Your task to perform on an android device: delete a single message in the gmail app Image 0: 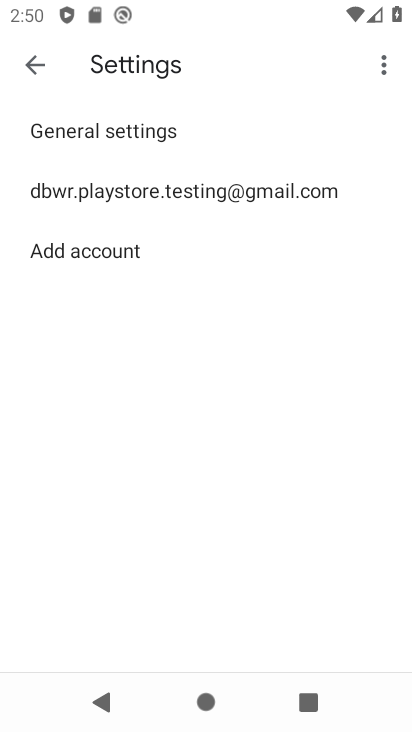
Step 0: press home button
Your task to perform on an android device: delete a single message in the gmail app Image 1: 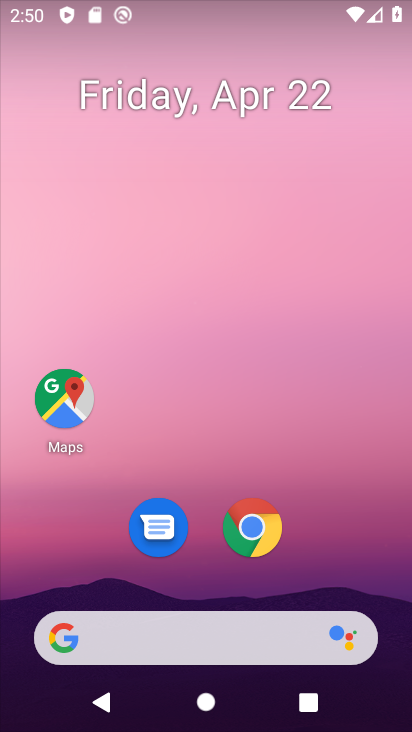
Step 1: drag from (376, 555) to (304, 82)
Your task to perform on an android device: delete a single message in the gmail app Image 2: 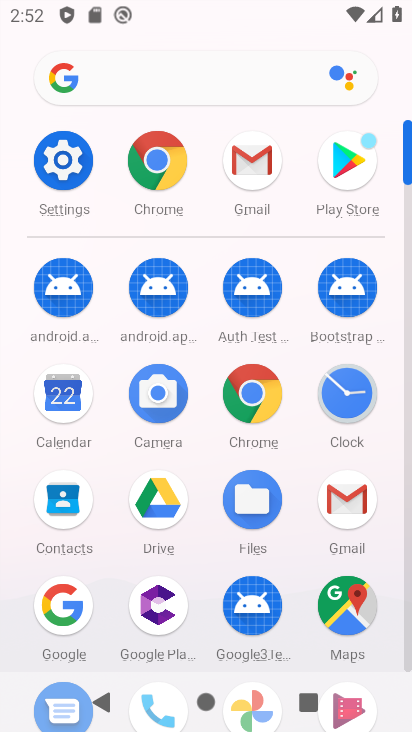
Step 2: click (338, 521)
Your task to perform on an android device: delete a single message in the gmail app Image 3: 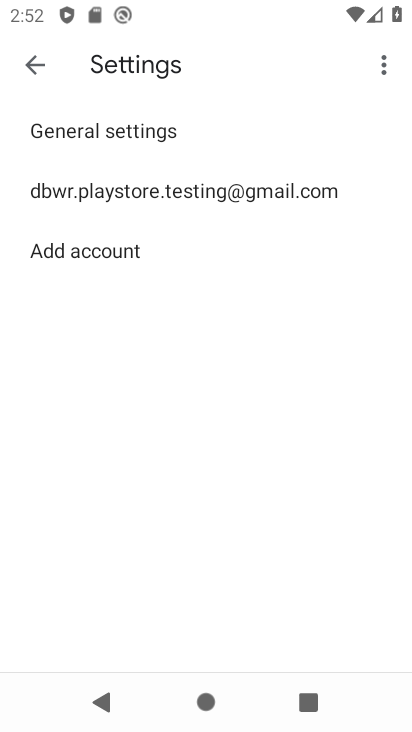
Step 3: click (31, 78)
Your task to perform on an android device: delete a single message in the gmail app Image 4: 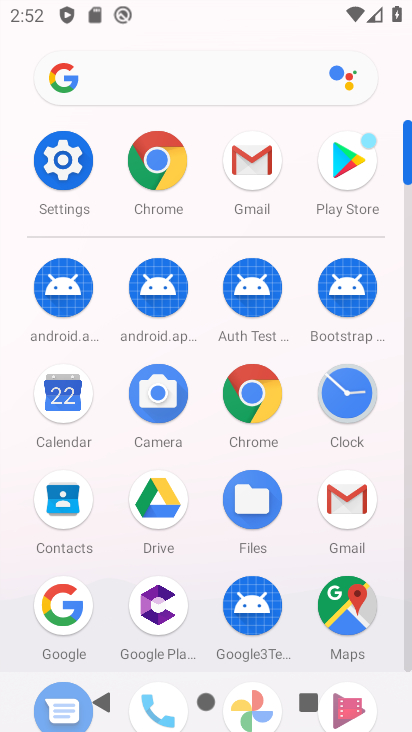
Step 4: click (359, 510)
Your task to perform on an android device: delete a single message in the gmail app Image 5: 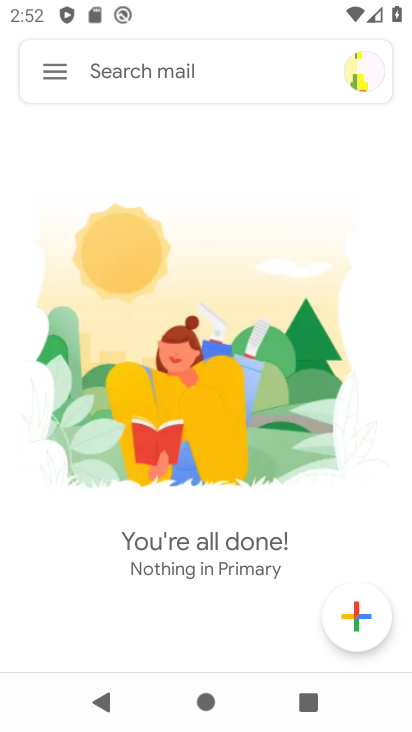
Step 5: task complete